Your task to perform on an android device: turn off translation in the chrome app Image 0: 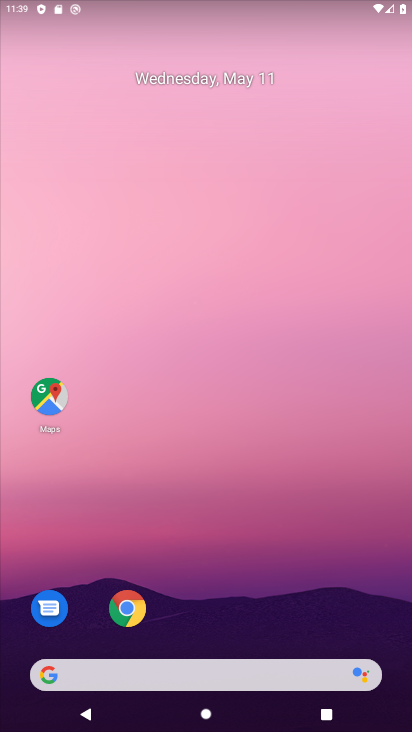
Step 0: click (135, 606)
Your task to perform on an android device: turn off translation in the chrome app Image 1: 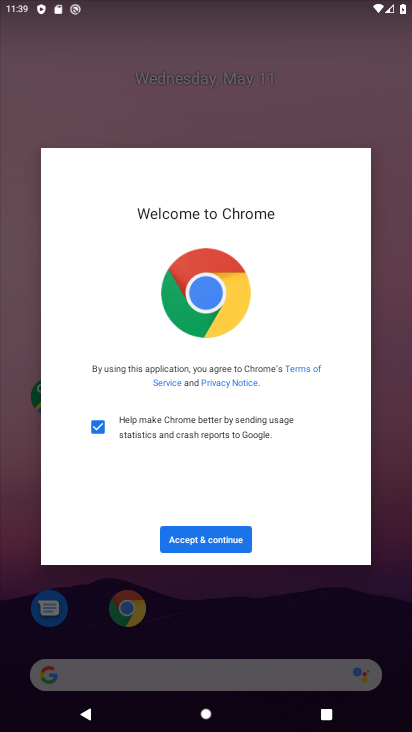
Step 1: click (214, 546)
Your task to perform on an android device: turn off translation in the chrome app Image 2: 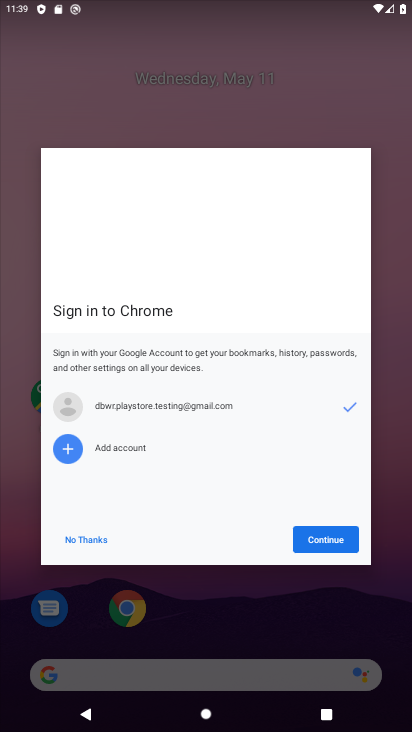
Step 2: click (94, 540)
Your task to perform on an android device: turn off translation in the chrome app Image 3: 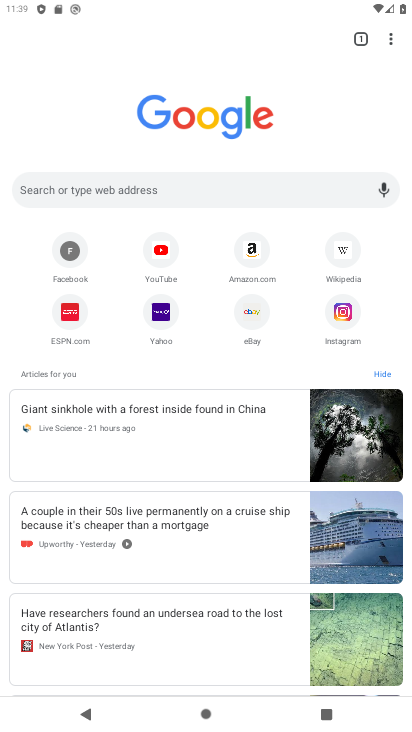
Step 3: click (394, 34)
Your task to perform on an android device: turn off translation in the chrome app Image 4: 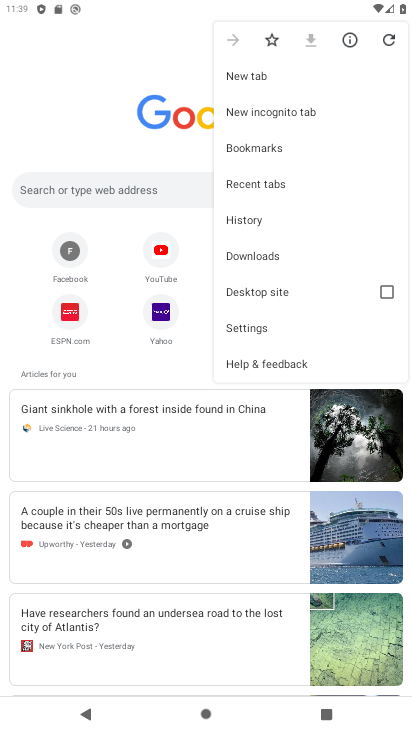
Step 4: click (258, 325)
Your task to perform on an android device: turn off translation in the chrome app Image 5: 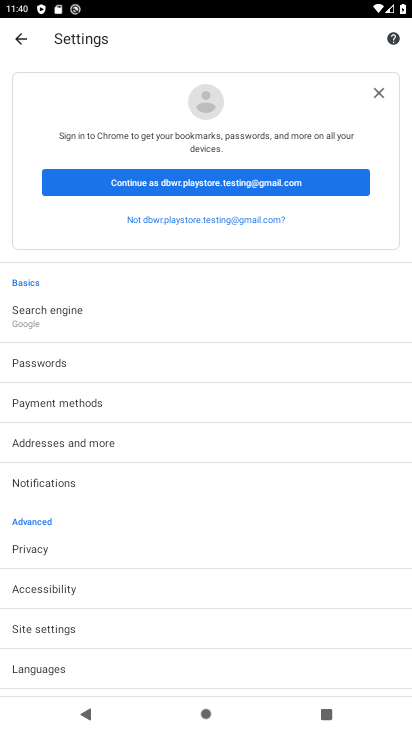
Step 5: click (57, 665)
Your task to perform on an android device: turn off translation in the chrome app Image 6: 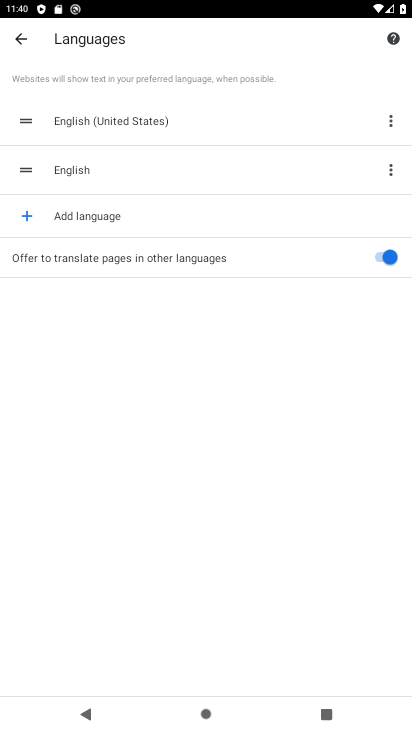
Step 6: click (383, 249)
Your task to perform on an android device: turn off translation in the chrome app Image 7: 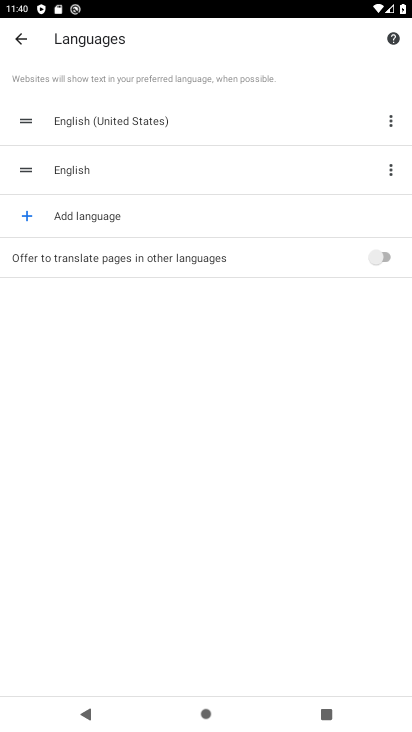
Step 7: task complete